Your task to perform on an android device: uninstall "LiveIn - Share Your Moment" Image 0: 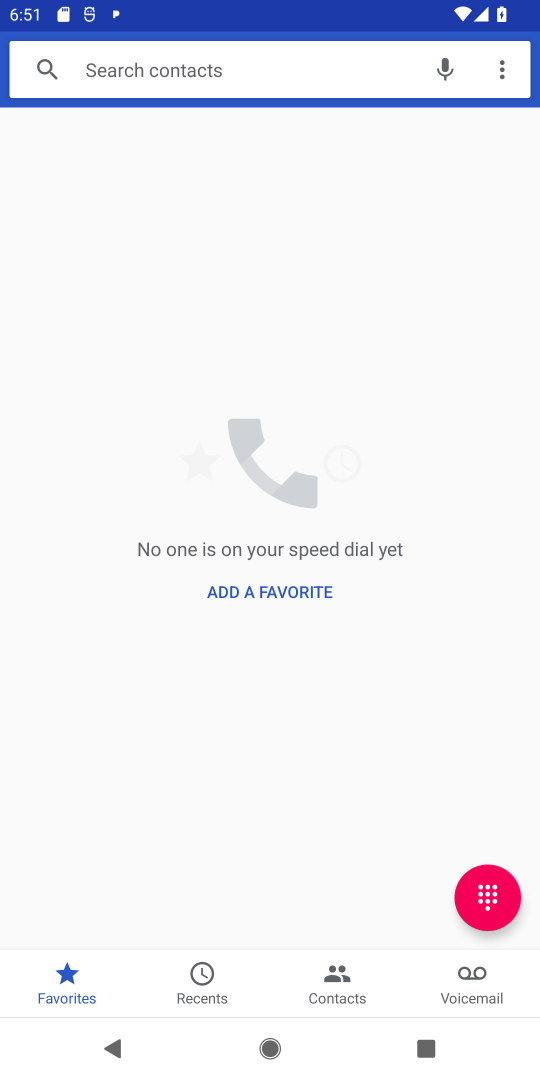
Step 0: press home button
Your task to perform on an android device: uninstall "LiveIn - Share Your Moment" Image 1: 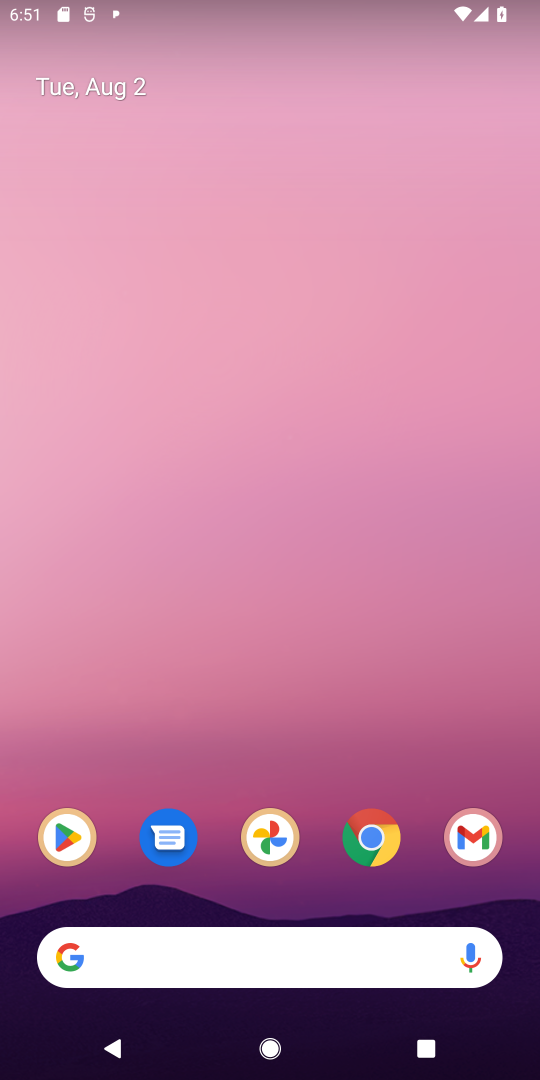
Step 1: click (47, 841)
Your task to perform on an android device: uninstall "LiveIn - Share Your Moment" Image 2: 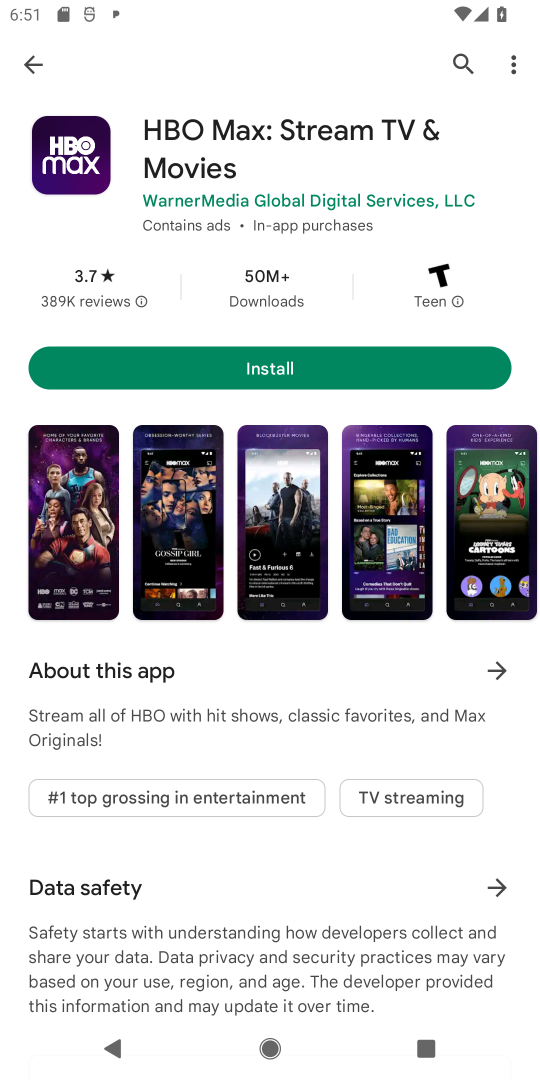
Step 2: click (460, 65)
Your task to perform on an android device: uninstall "LiveIn - Share Your Moment" Image 3: 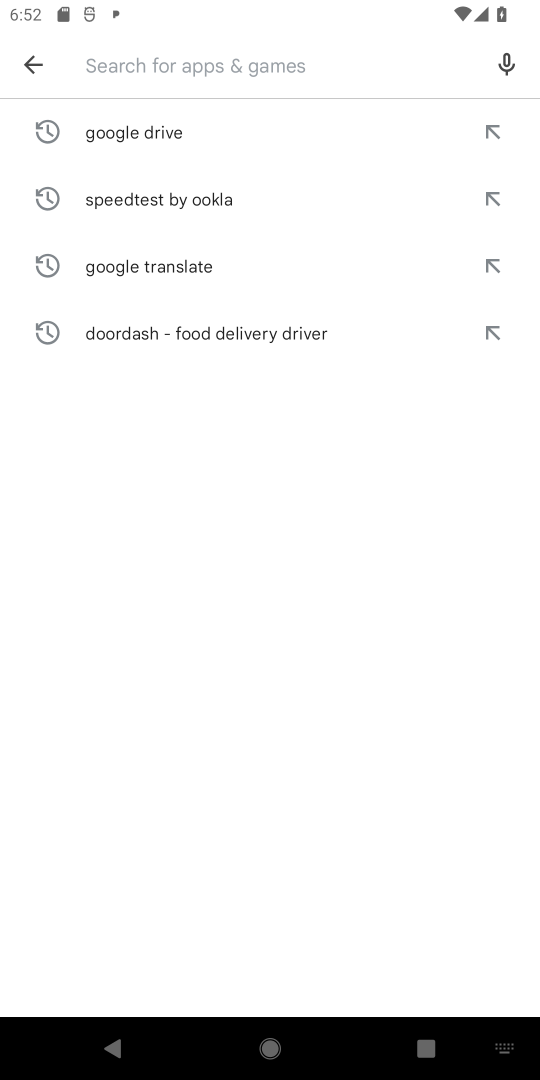
Step 3: type "LiveIn  Share Your Moment"
Your task to perform on an android device: uninstall "LiveIn - Share Your Moment" Image 4: 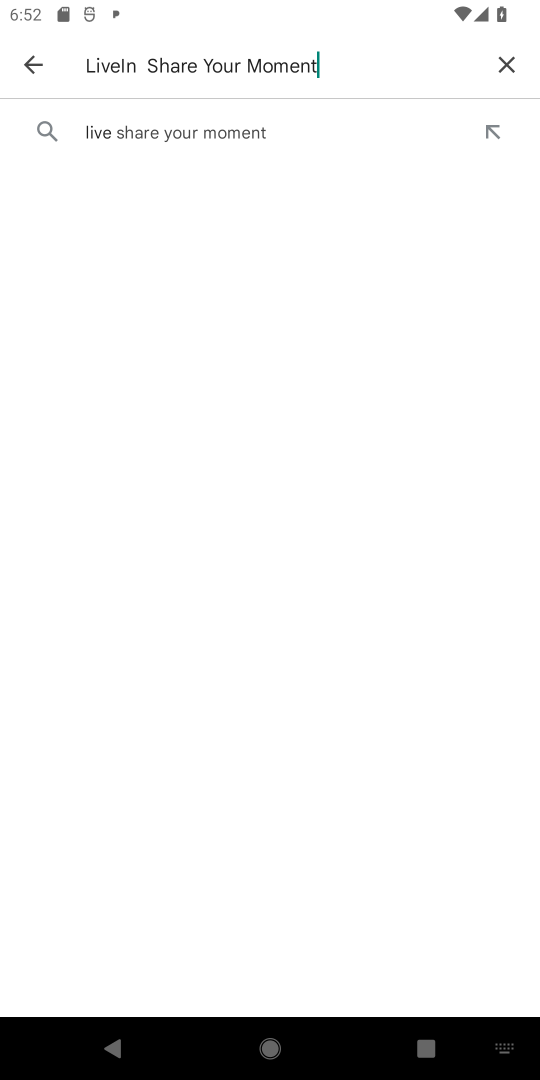
Step 4: click (151, 138)
Your task to perform on an android device: uninstall "LiveIn - Share Your Moment" Image 5: 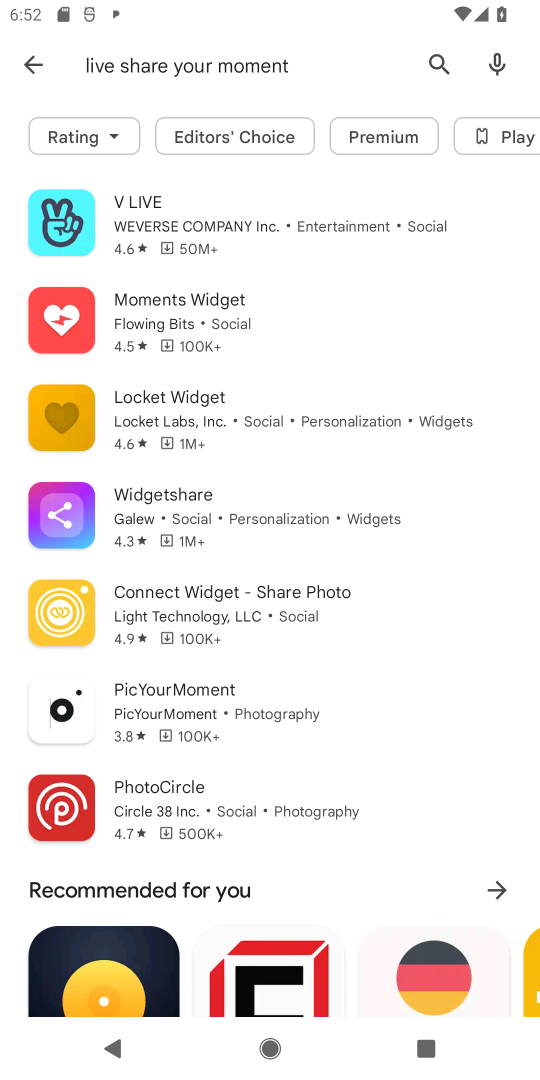
Step 5: task complete